Your task to perform on an android device: turn off wifi Image 0: 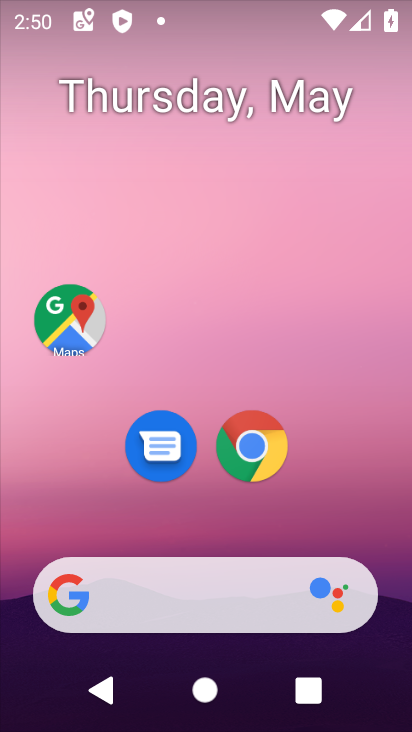
Step 0: drag from (288, 526) to (294, 33)
Your task to perform on an android device: turn off wifi Image 1: 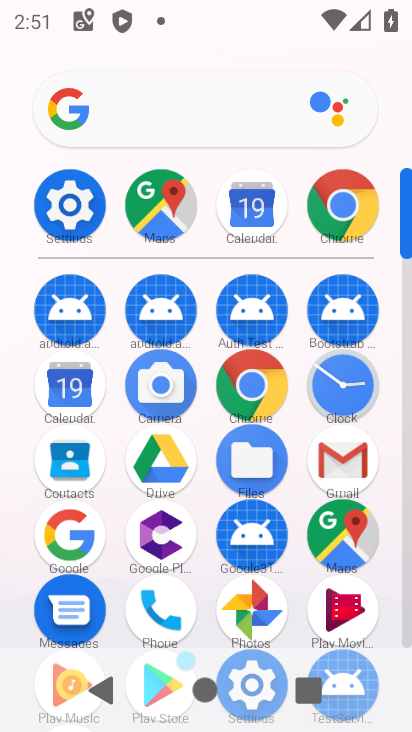
Step 1: click (73, 205)
Your task to perform on an android device: turn off wifi Image 2: 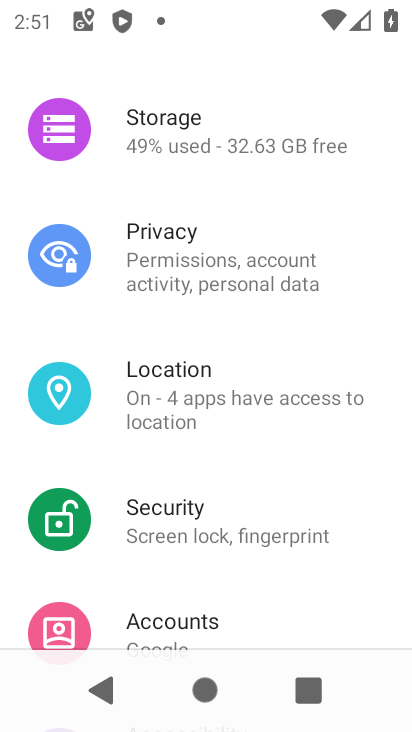
Step 2: drag from (193, 192) to (206, 416)
Your task to perform on an android device: turn off wifi Image 3: 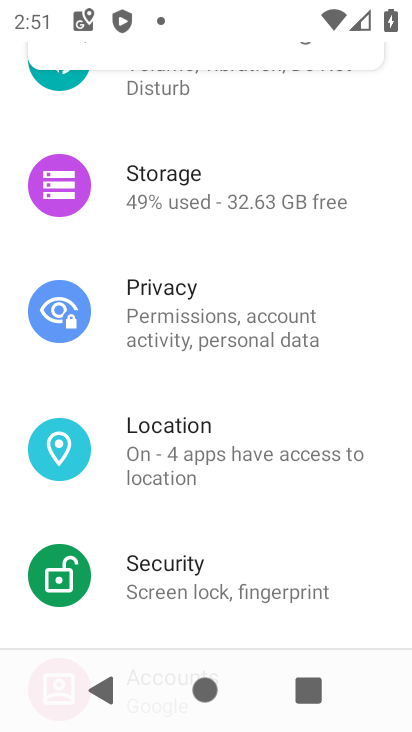
Step 3: drag from (265, 221) to (236, 454)
Your task to perform on an android device: turn off wifi Image 4: 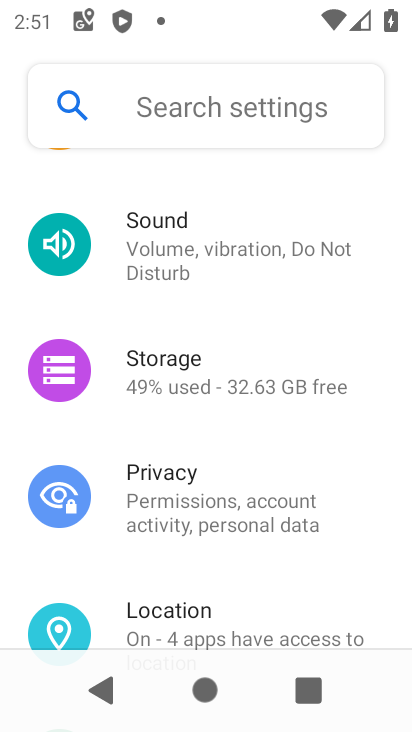
Step 4: drag from (245, 235) to (235, 449)
Your task to perform on an android device: turn off wifi Image 5: 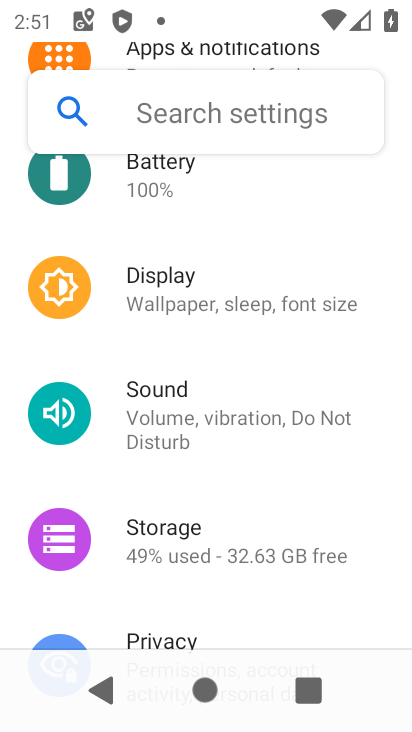
Step 5: drag from (256, 228) to (251, 464)
Your task to perform on an android device: turn off wifi Image 6: 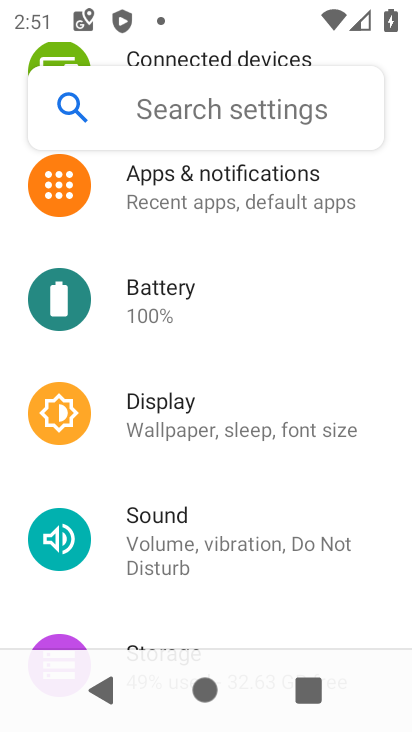
Step 6: drag from (280, 264) to (244, 453)
Your task to perform on an android device: turn off wifi Image 7: 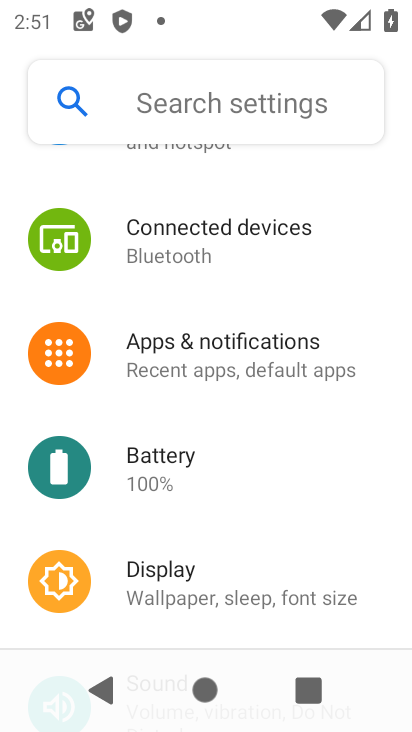
Step 7: drag from (265, 236) to (268, 472)
Your task to perform on an android device: turn off wifi Image 8: 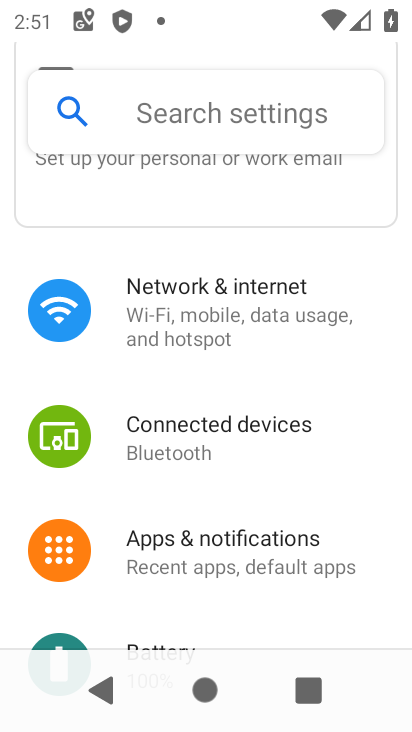
Step 8: click (248, 334)
Your task to perform on an android device: turn off wifi Image 9: 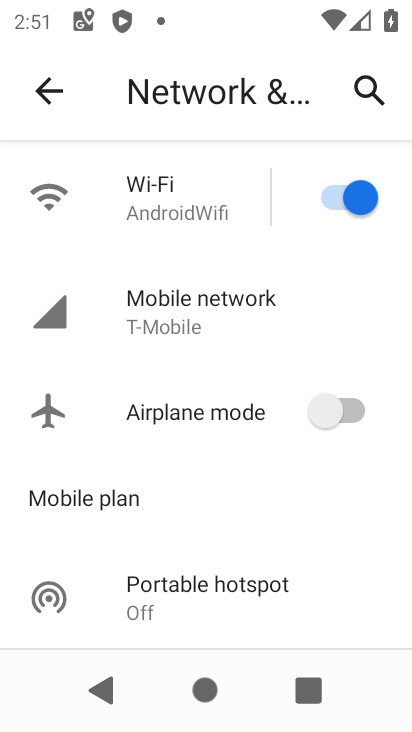
Step 9: click (149, 204)
Your task to perform on an android device: turn off wifi Image 10: 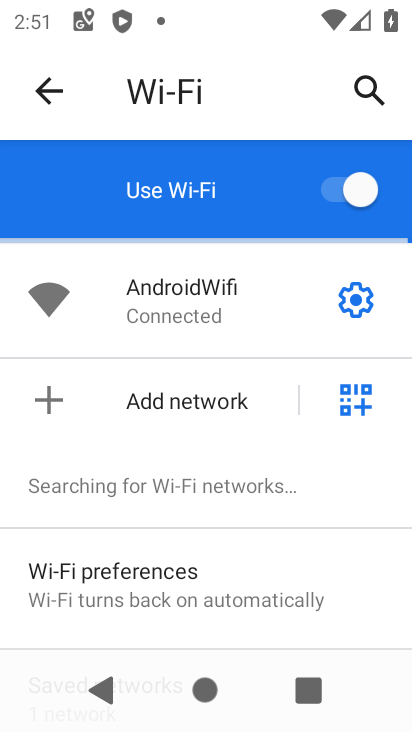
Step 10: click (371, 205)
Your task to perform on an android device: turn off wifi Image 11: 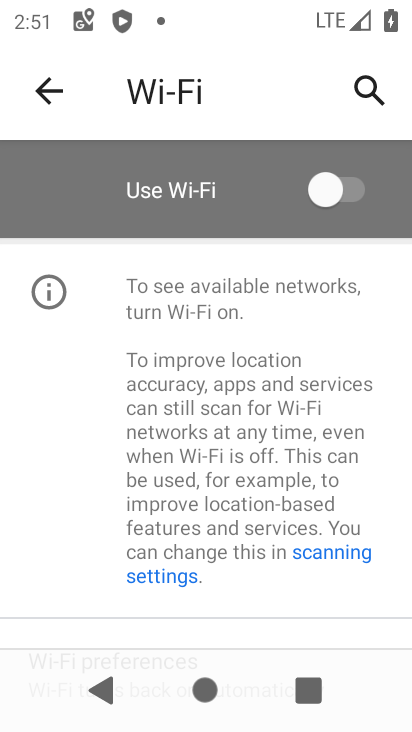
Step 11: task complete